Your task to perform on an android device: Show me some nice wallpapers for my computer Image 0: 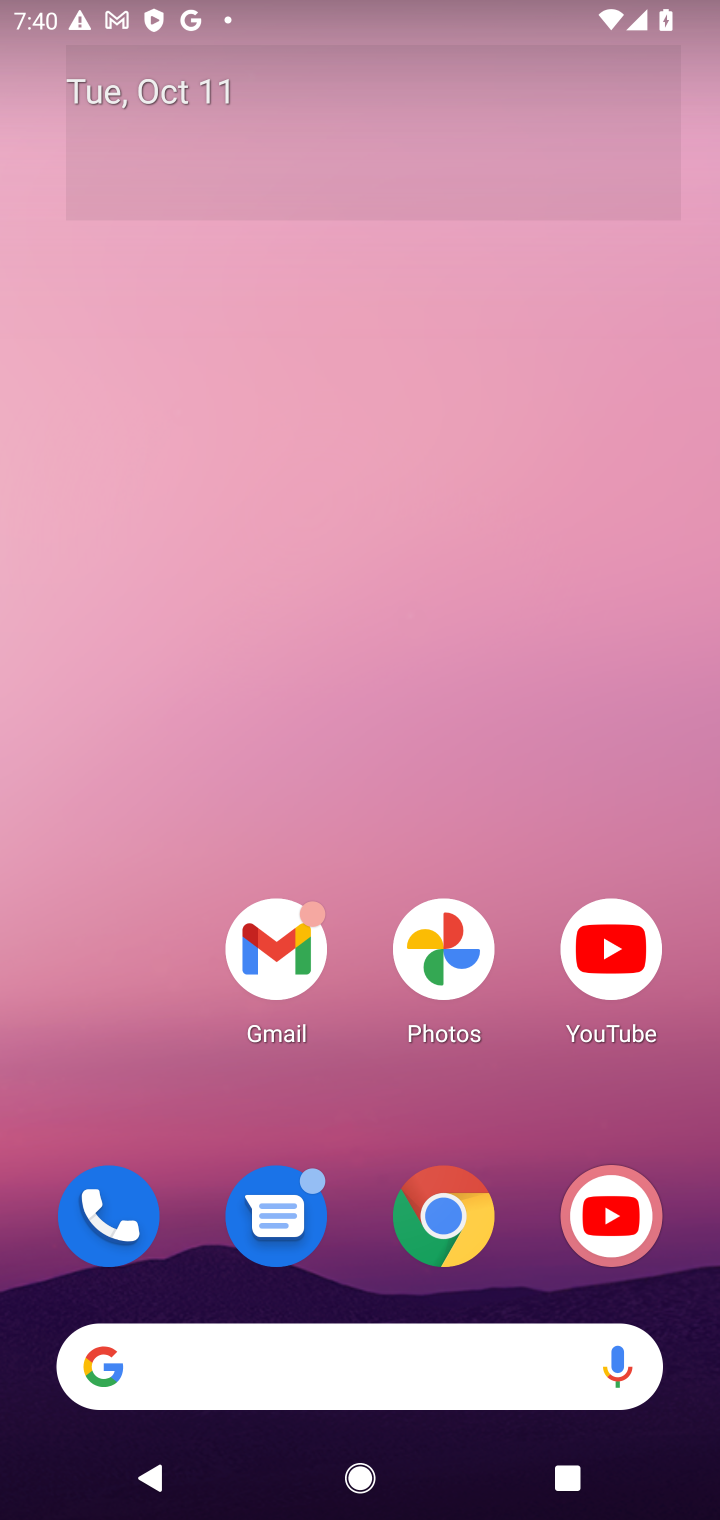
Step 0: click (447, 1199)
Your task to perform on an android device: Show me some nice wallpapers for my computer Image 1: 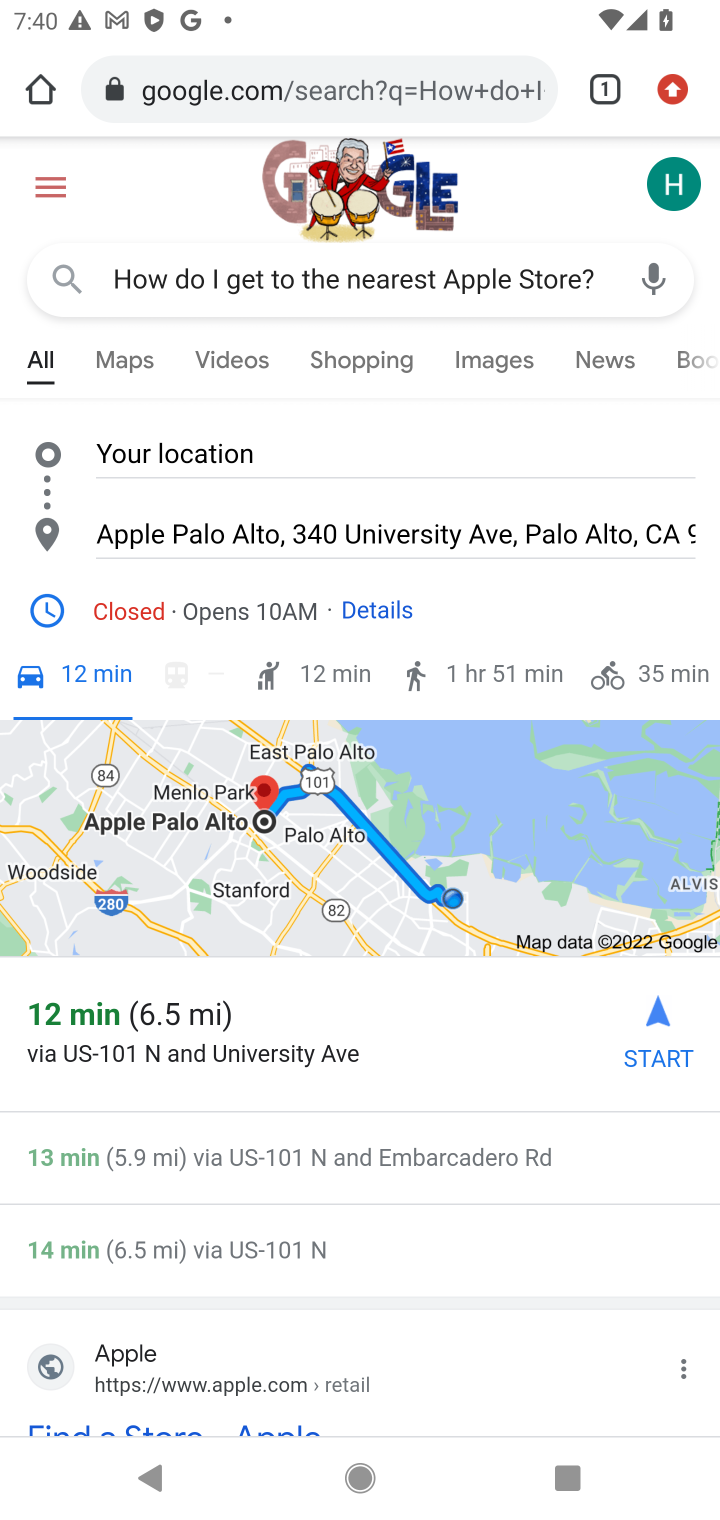
Step 1: click (522, 290)
Your task to perform on an android device: Show me some nice wallpapers for my computer Image 2: 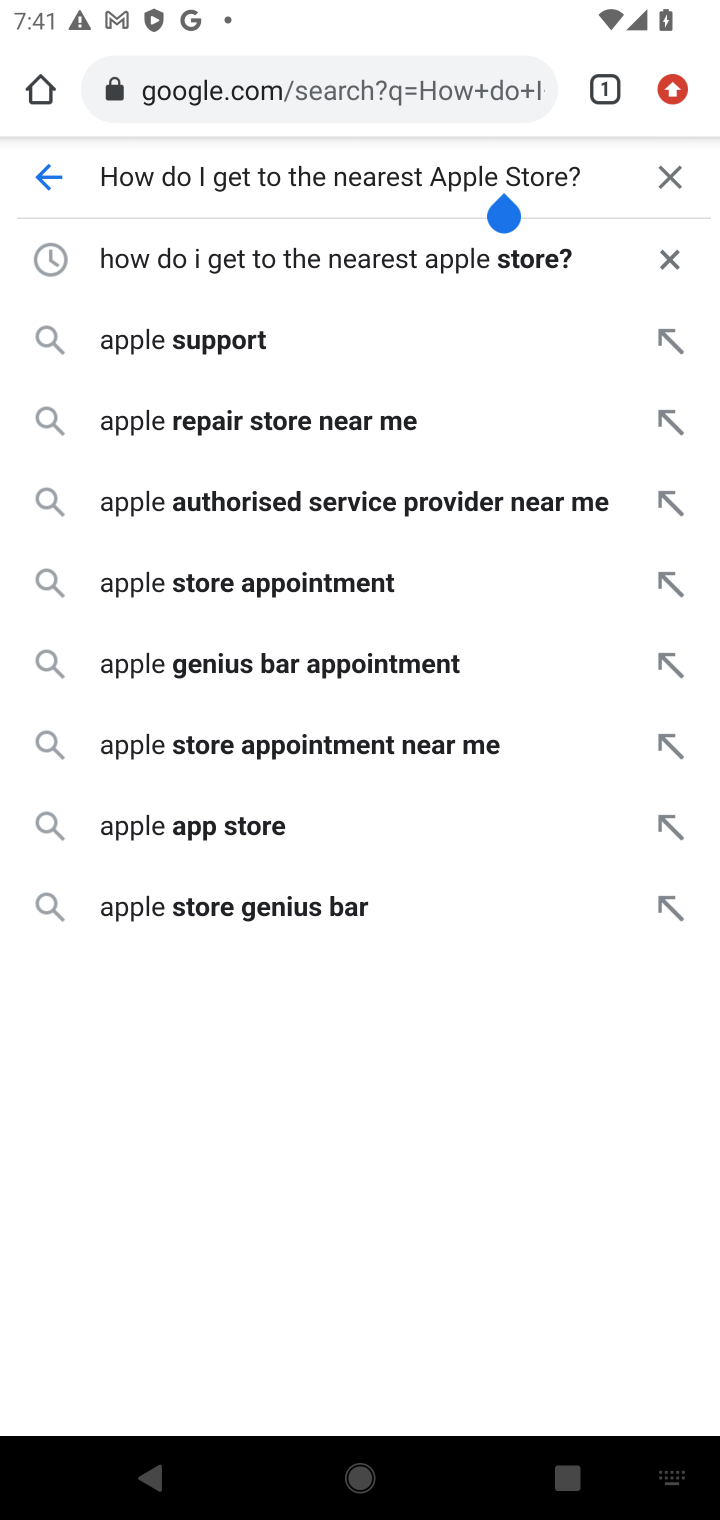
Step 2: click (663, 167)
Your task to perform on an android device: Show me some nice wallpapers for my computer Image 3: 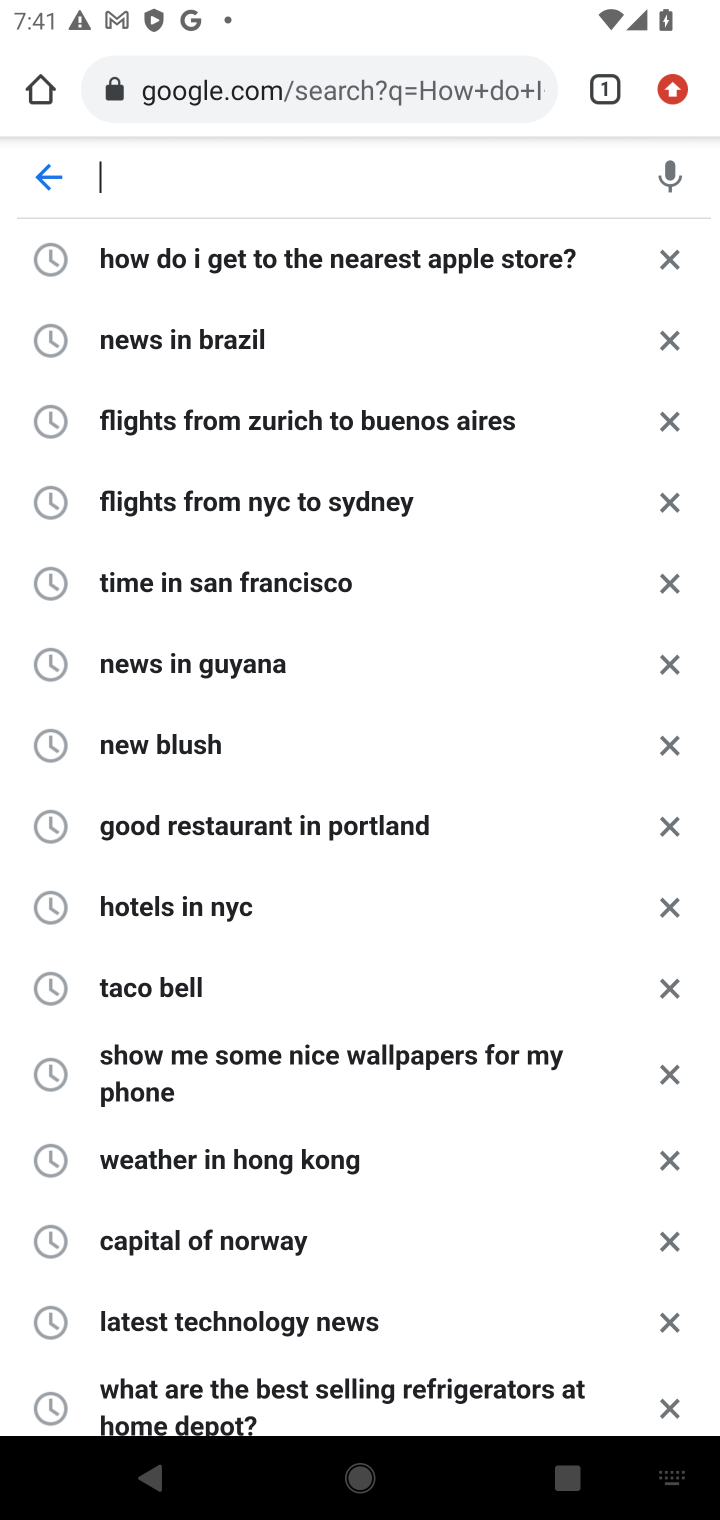
Step 3: type "Show me some nice wallpapers for my computer"
Your task to perform on an android device: Show me some nice wallpapers for my computer Image 4: 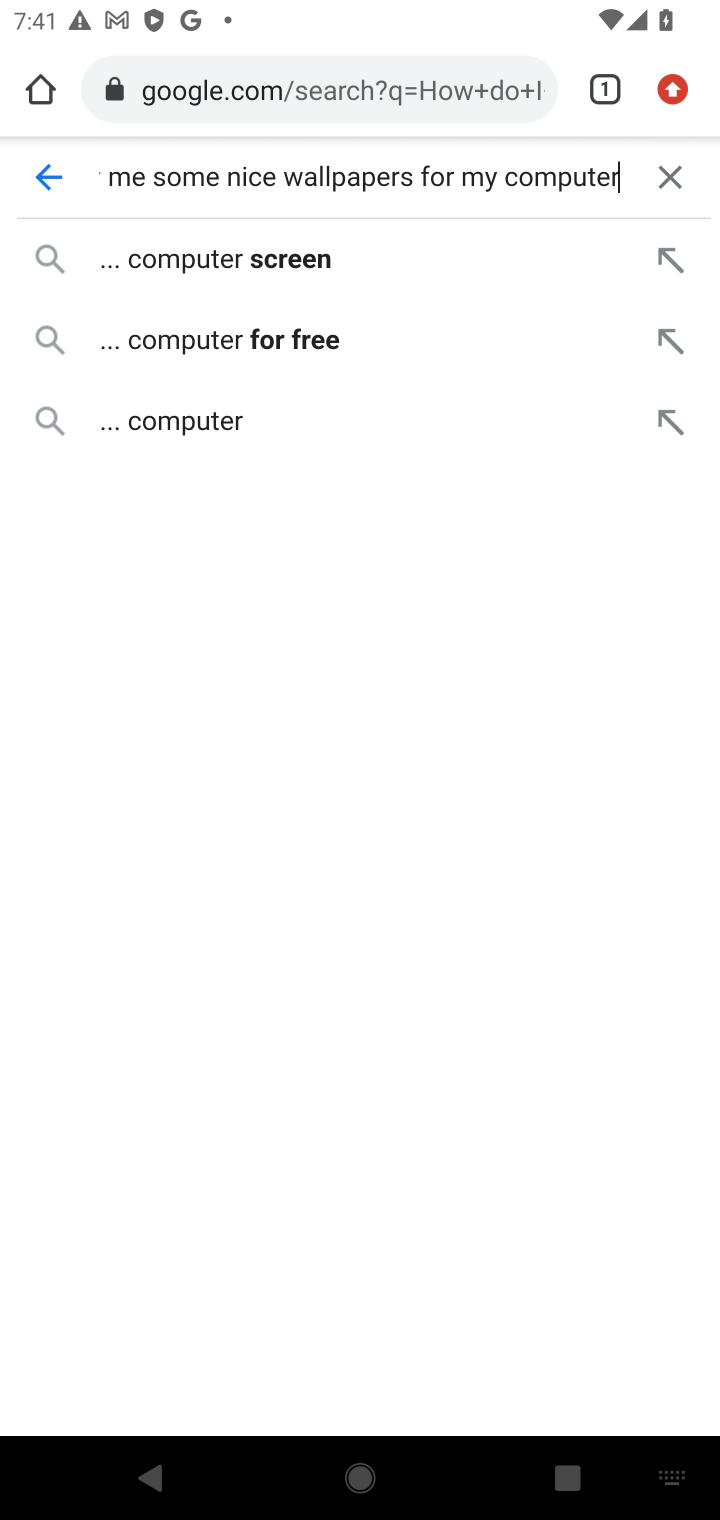
Step 4: press enter
Your task to perform on an android device: Show me some nice wallpapers for my computer Image 5: 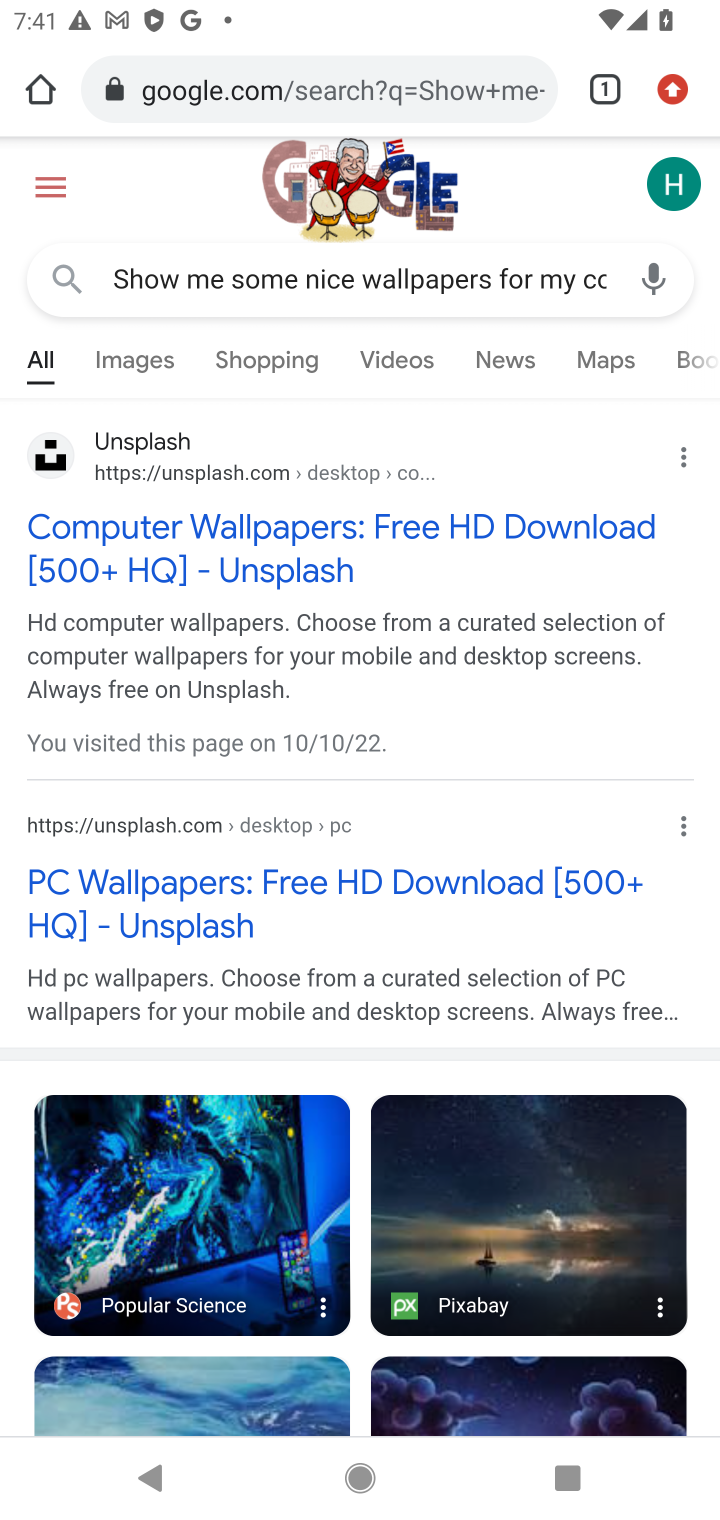
Step 5: task complete